Your task to perform on an android device: move an email to a new category in the gmail app Image 0: 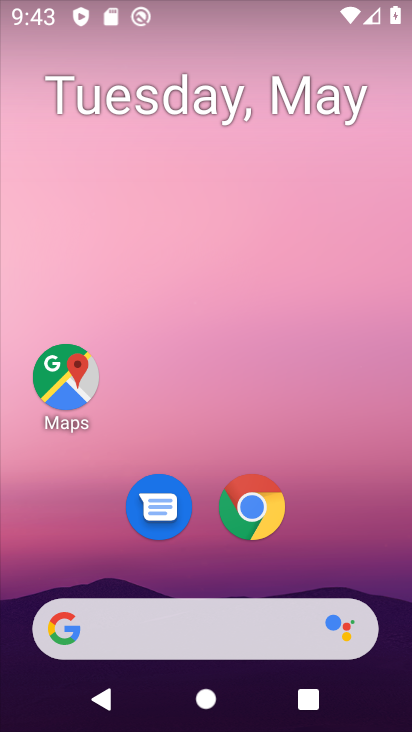
Step 0: drag from (400, 603) to (284, 64)
Your task to perform on an android device: move an email to a new category in the gmail app Image 1: 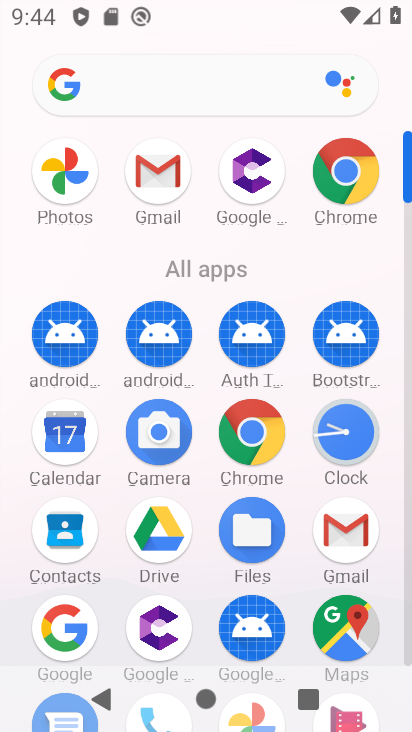
Step 1: click (168, 194)
Your task to perform on an android device: move an email to a new category in the gmail app Image 2: 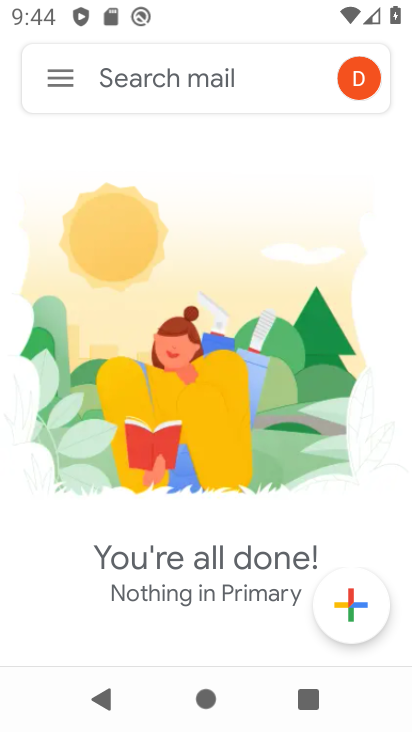
Step 2: task complete